Your task to perform on an android device: What's on my calendar tomorrow? Image 0: 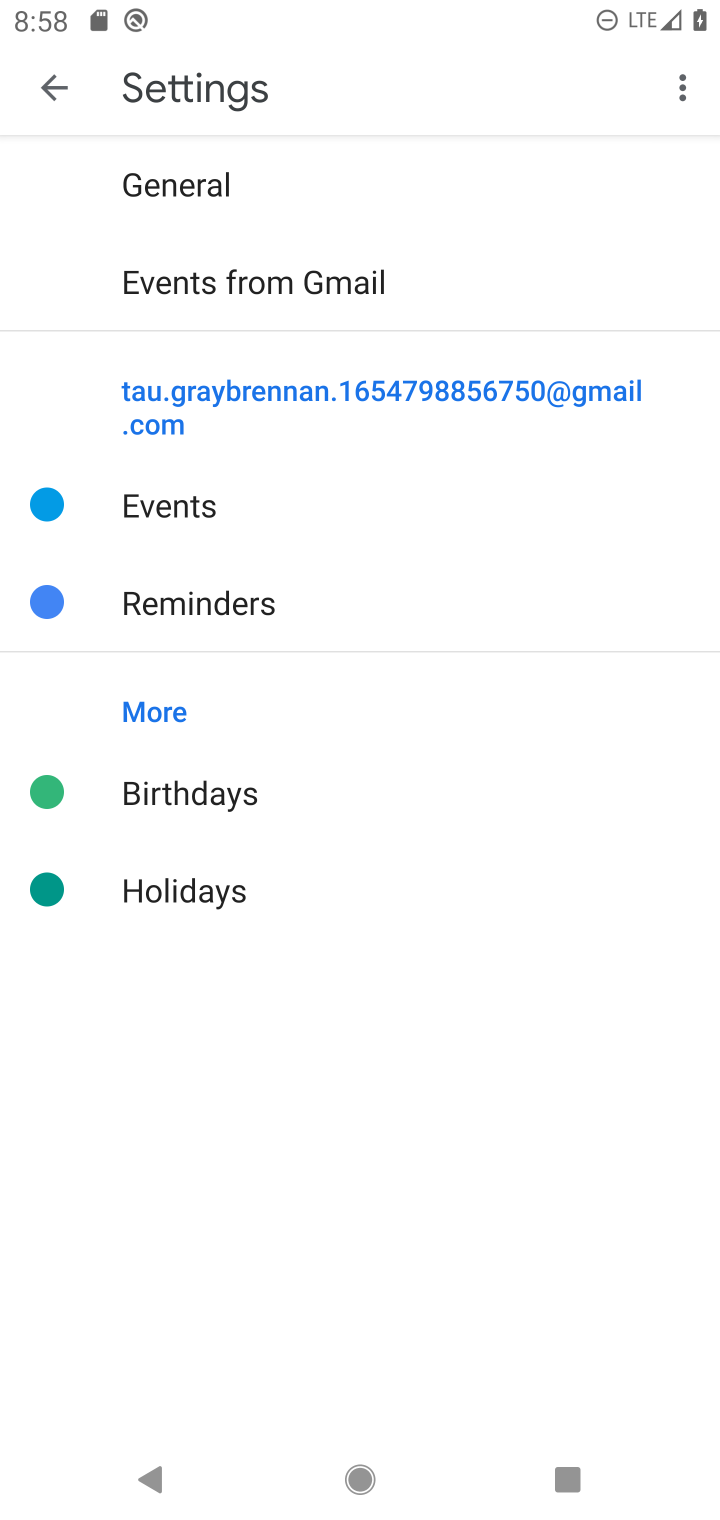
Step 0: press home button
Your task to perform on an android device: What's on my calendar tomorrow? Image 1: 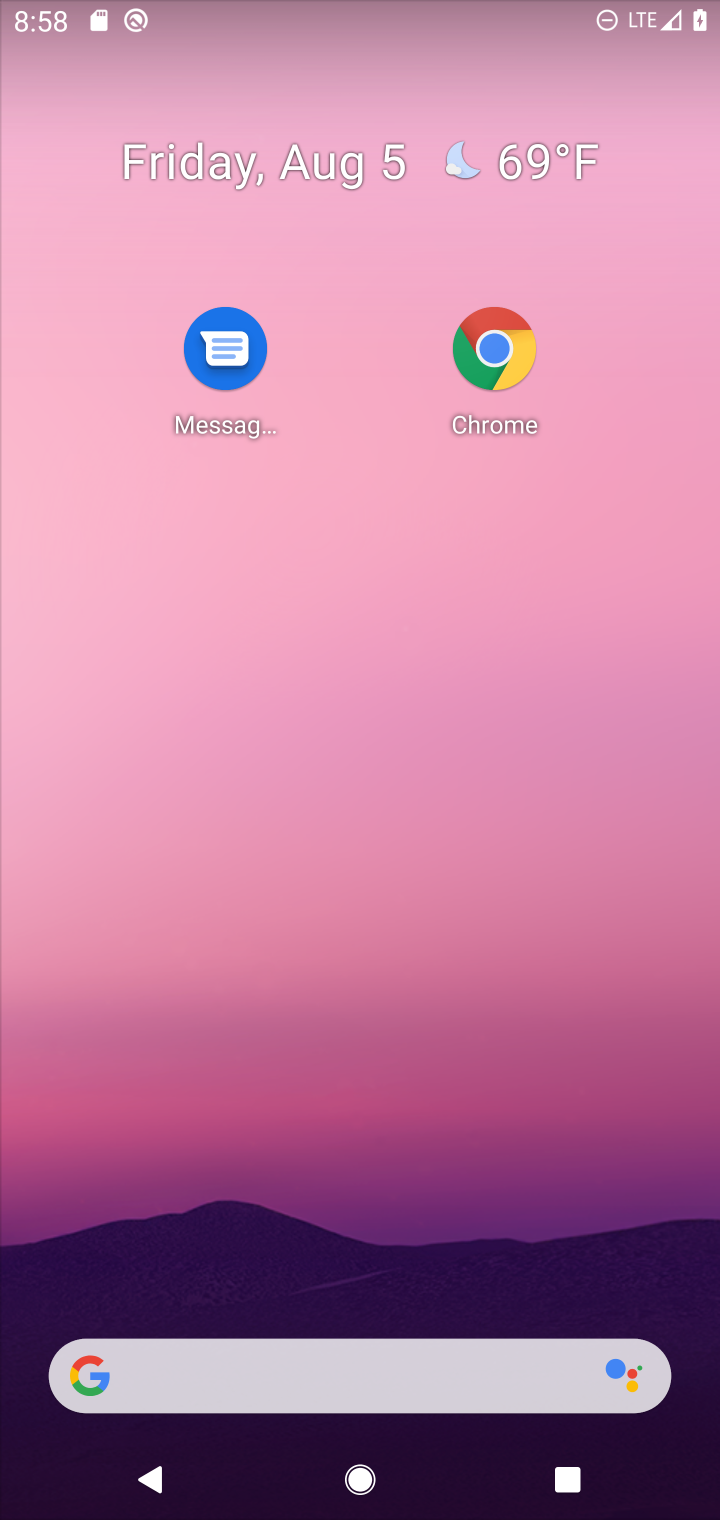
Step 1: drag from (383, 1312) to (214, 630)
Your task to perform on an android device: What's on my calendar tomorrow? Image 2: 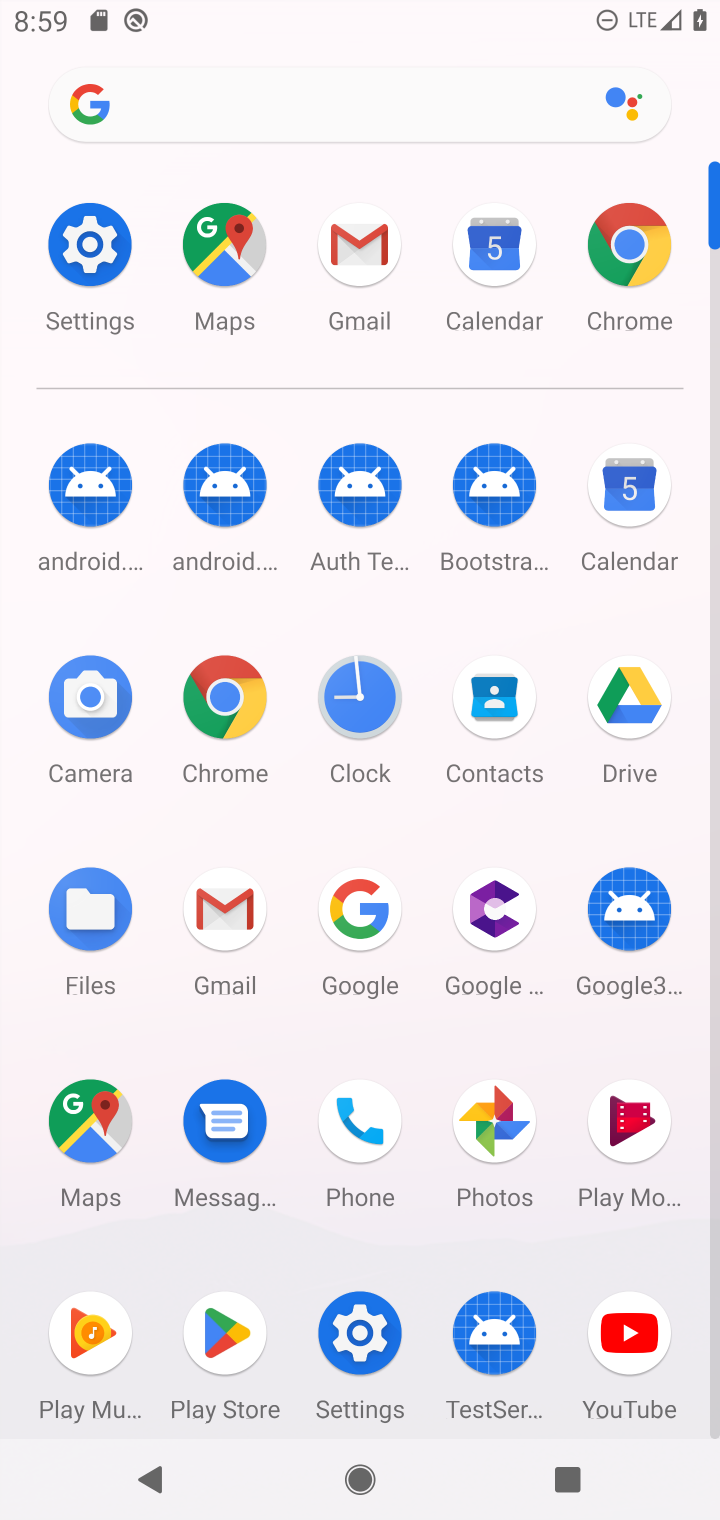
Step 2: click (598, 524)
Your task to perform on an android device: What's on my calendar tomorrow? Image 3: 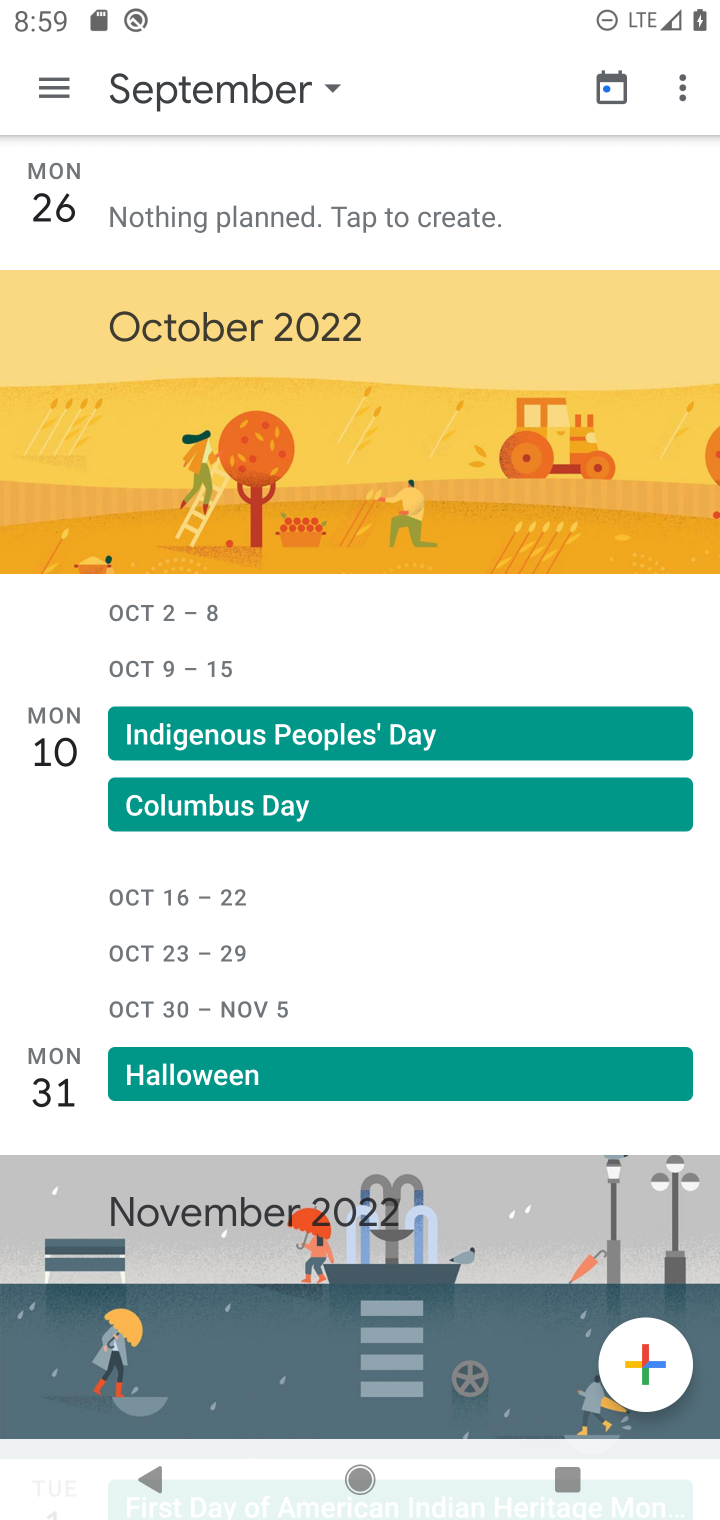
Step 3: click (66, 86)
Your task to perform on an android device: What's on my calendar tomorrow? Image 4: 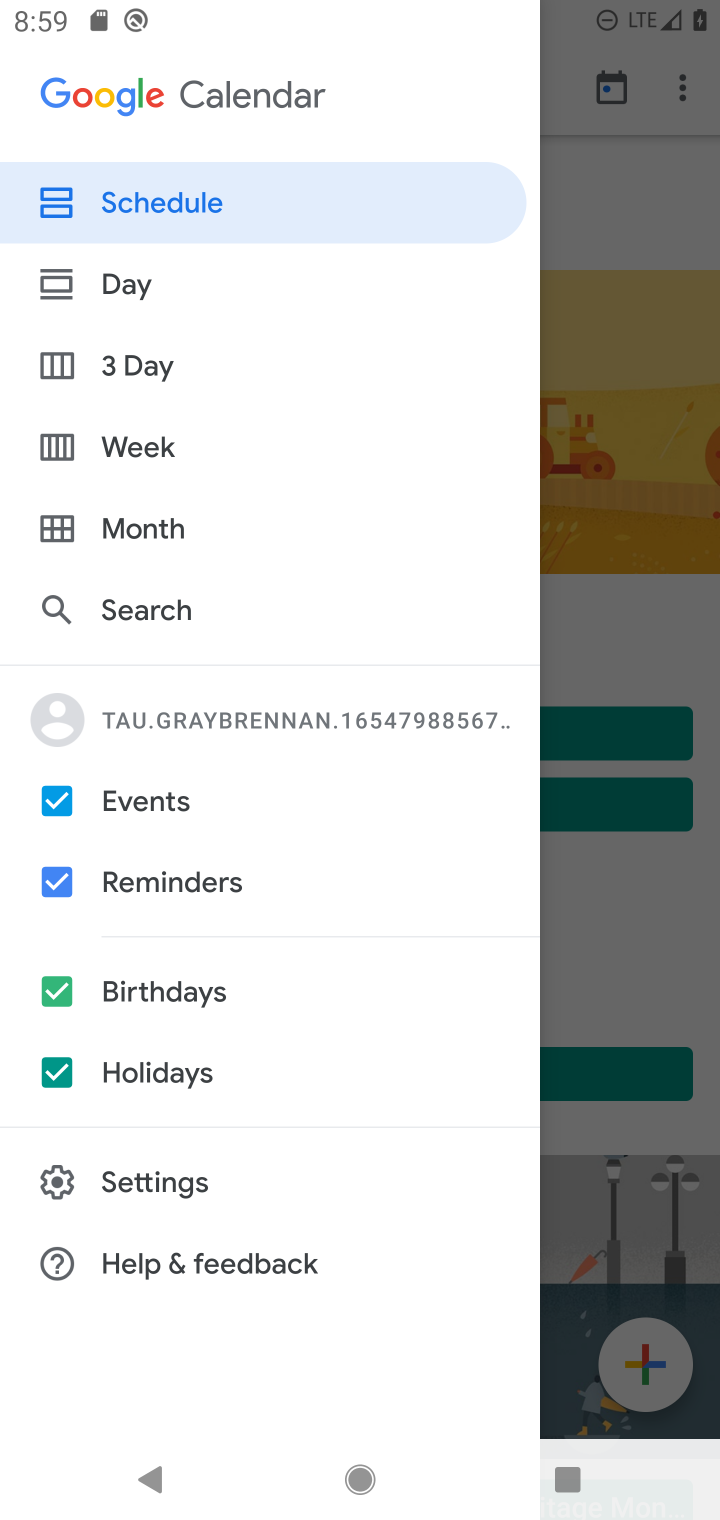
Step 4: click (137, 525)
Your task to perform on an android device: What's on my calendar tomorrow? Image 5: 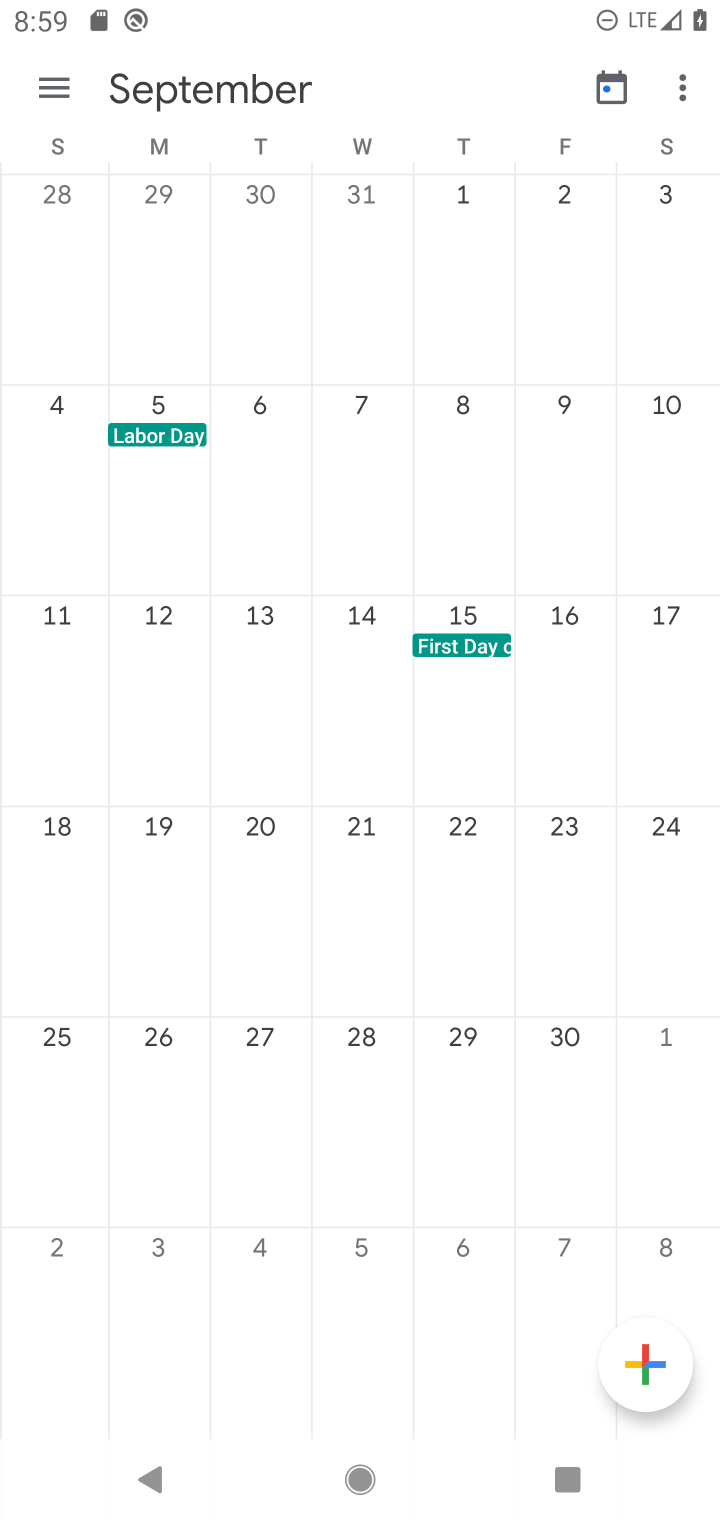
Step 5: drag from (52, 720) to (718, 355)
Your task to perform on an android device: What's on my calendar tomorrow? Image 6: 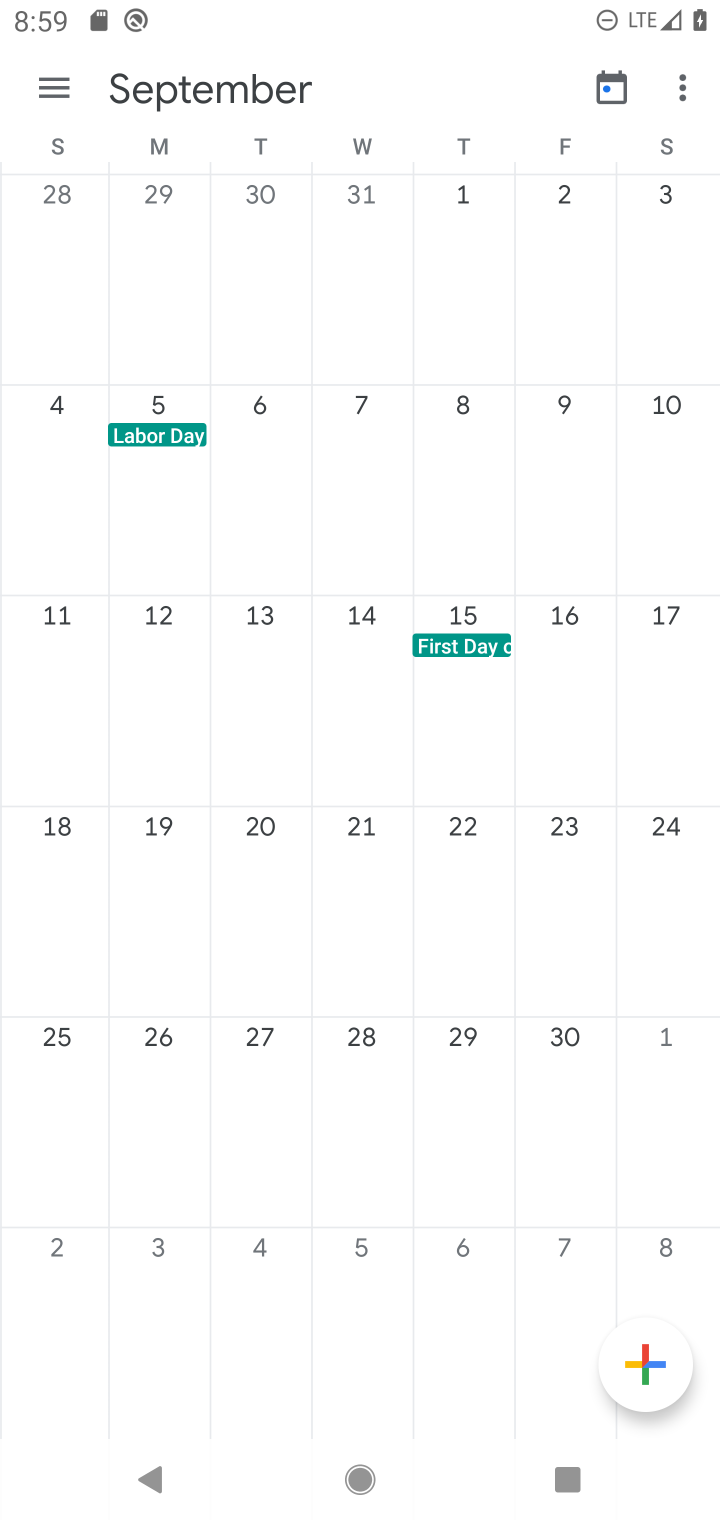
Step 6: drag from (38, 526) to (717, 253)
Your task to perform on an android device: What's on my calendar tomorrow? Image 7: 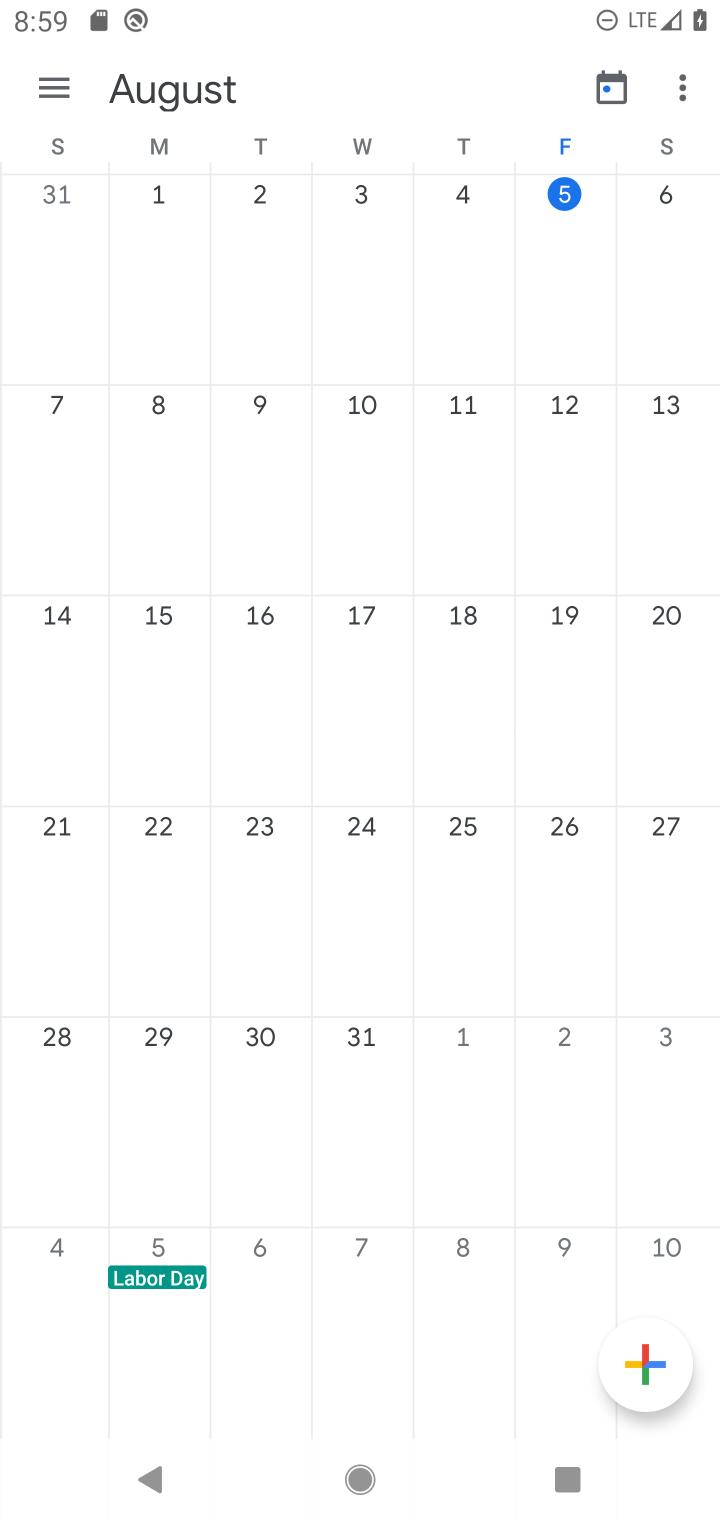
Step 7: click (662, 259)
Your task to perform on an android device: What's on my calendar tomorrow? Image 8: 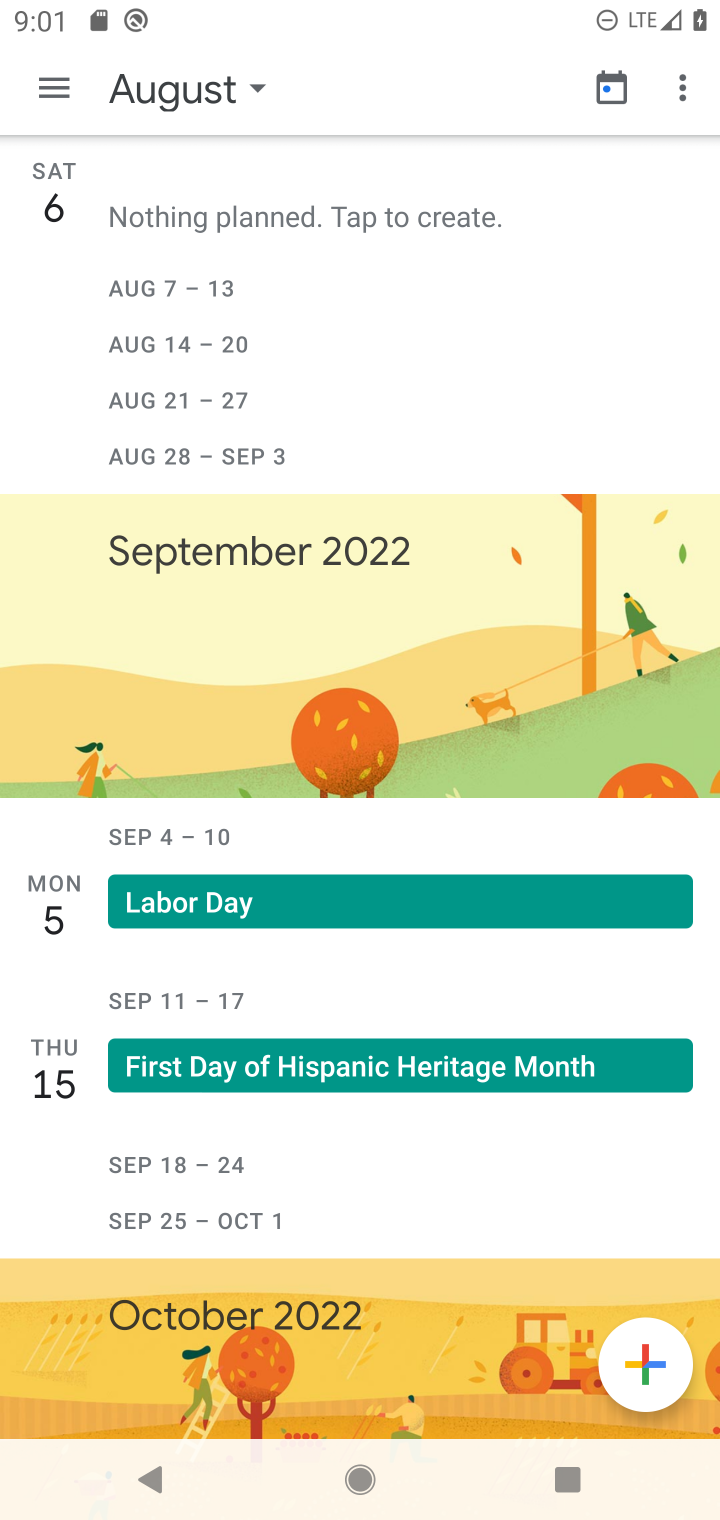
Step 8: task complete